Your task to perform on an android device: turn off smart reply in the gmail app Image 0: 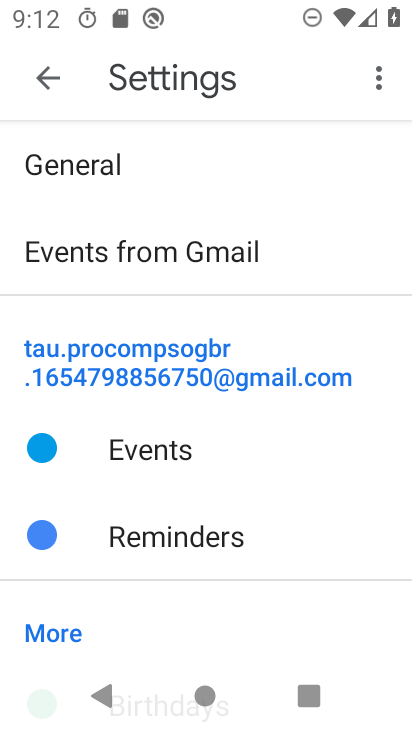
Step 0: press back button
Your task to perform on an android device: turn off smart reply in the gmail app Image 1: 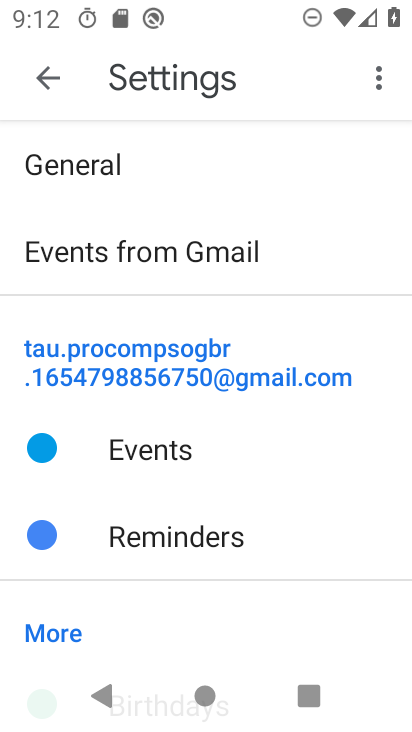
Step 1: press back button
Your task to perform on an android device: turn off smart reply in the gmail app Image 2: 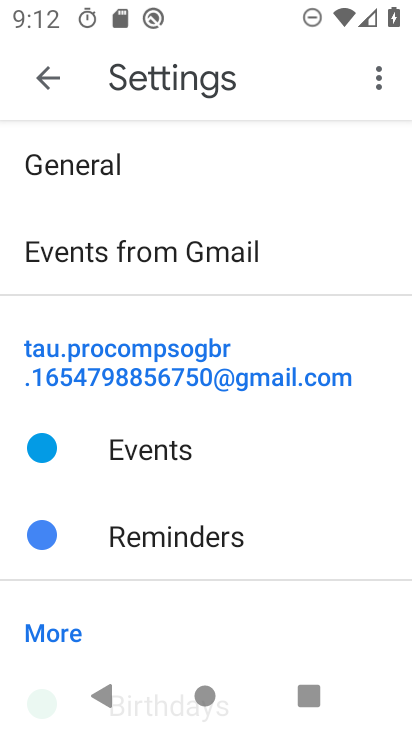
Step 2: press home button
Your task to perform on an android device: turn off smart reply in the gmail app Image 3: 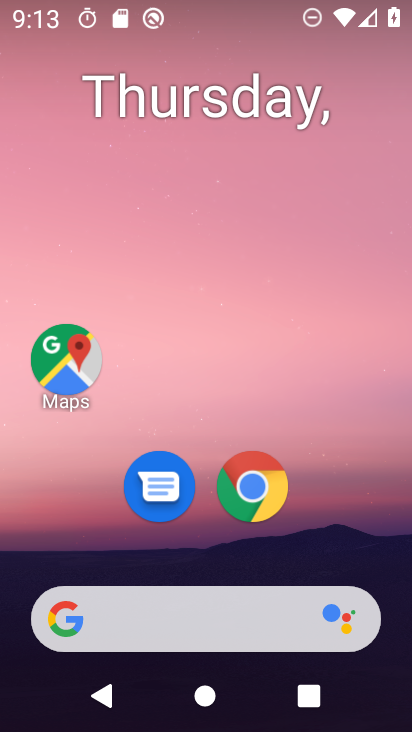
Step 3: drag from (75, 529) to (209, 6)
Your task to perform on an android device: turn off smart reply in the gmail app Image 4: 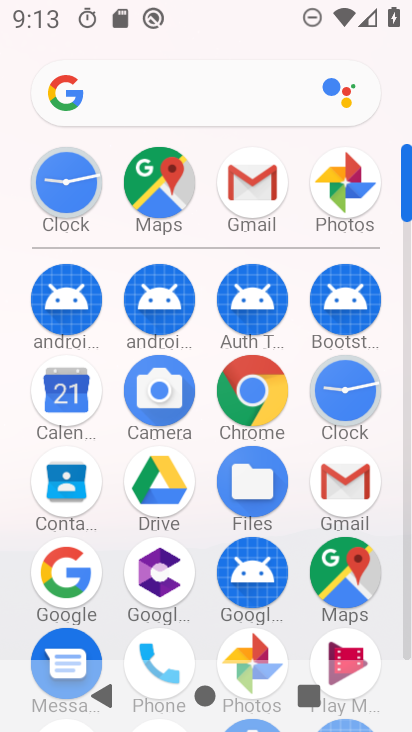
Step 4: click (249, 206)
Your task to perform on an android device: turn off smart reply in the gmail app Image 5: 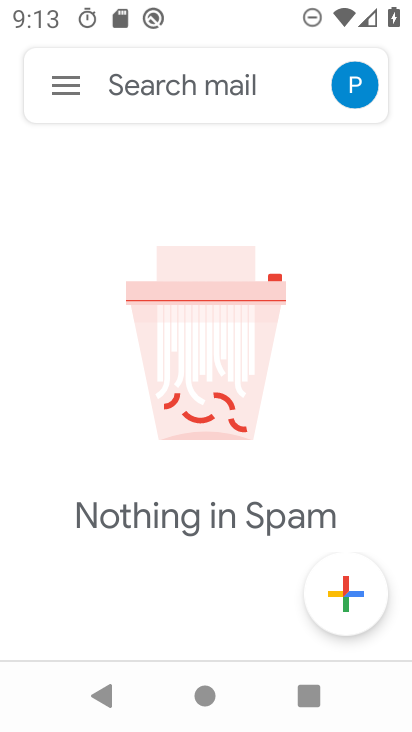
Step 5: click (58, 90)
Your task to perform on an android device: turn off smart reply in the gmail app Image 6: 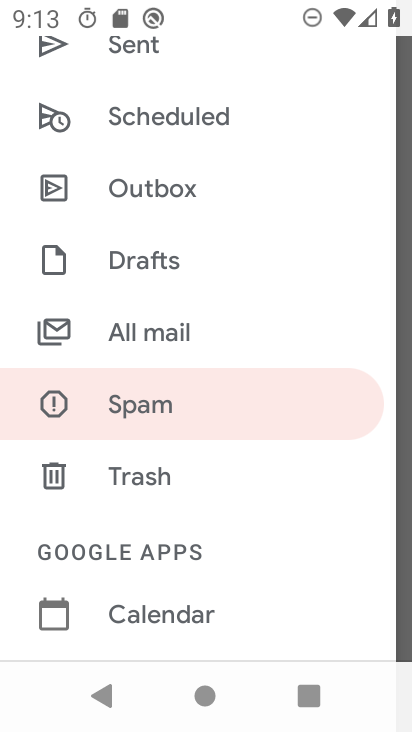
Step 6: drag from (191, 601) to (333, 31)
Your task to perform on an android device: turn off smart reply in the gmail app Image 7: 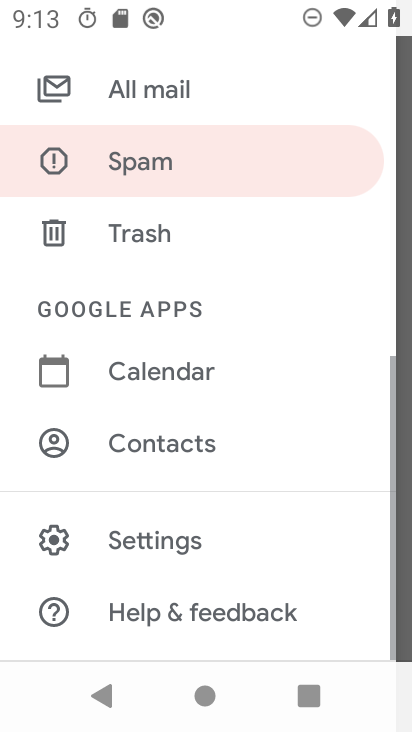
Step 7: click (168, 531)
Your task to perform on an android device: turn off smart reply in the gmail app Image 8: 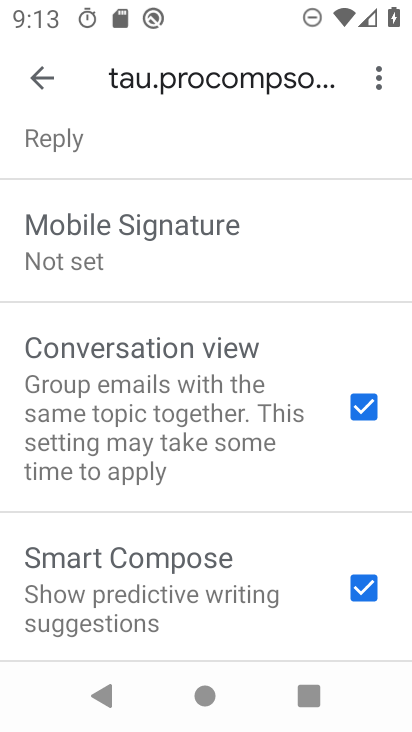
Step 8: drag from (166, 598) to (258, 110)
Your task to perform on an android device: turn off smart reply in the gmail app Image 9: 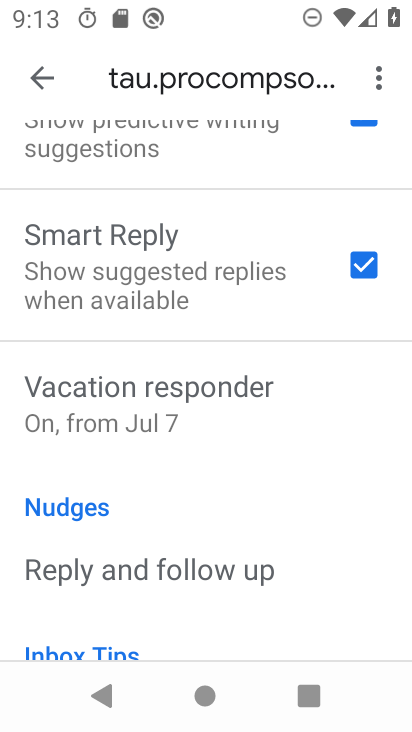
Step 9: click (364, 267)
Your task to perform on an android device: turn off smart reply in the gmail app Image 10: 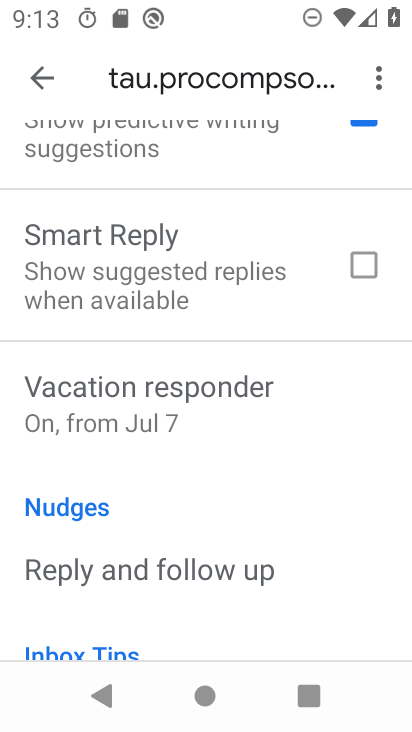
Step 10: task complete